Your task to perform on an android device: Go to CNN.com Image 0: 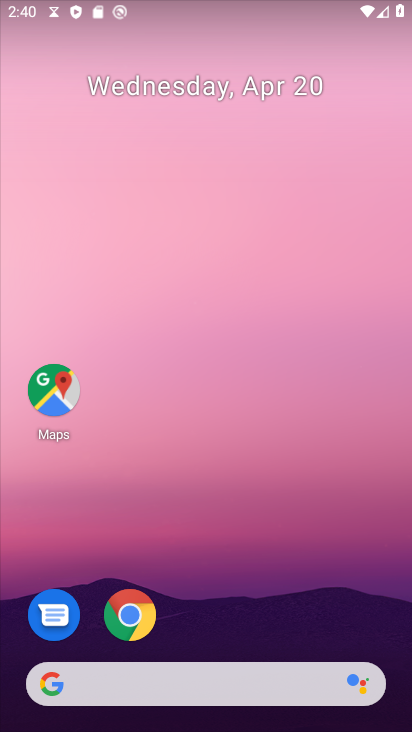
Step 0: drag from (213, 599) to (348, 156)
Your task to perform on an android device: Go to CNN.com Image 1: 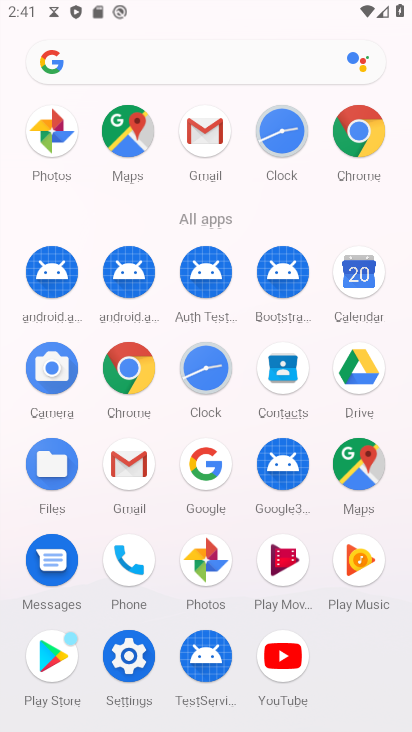
Step 1: click (123, 364)
Your task to perform on an android device: Go to CNN.com Image 2: 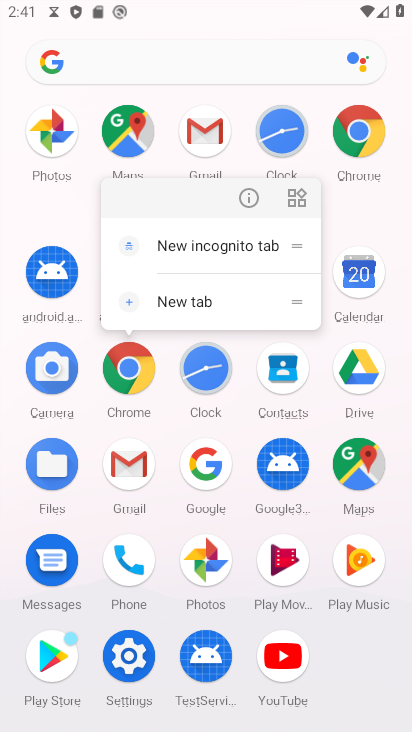
Step 2: click (253, 196)
Your task to perform on an android device: Go to CNN.com Image 3: 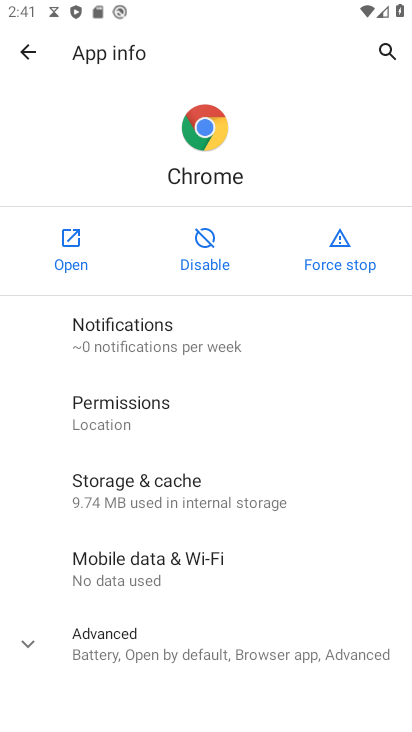
Step 3: click (80, 232)
Your task to perform on an android device: Go to CNN.com Image 4: 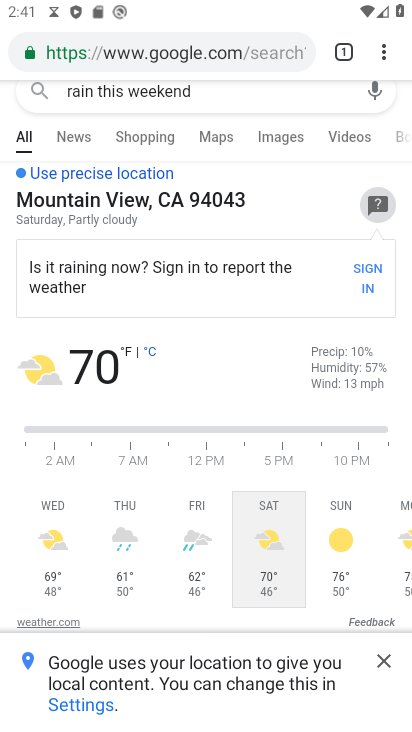
Step 4: click (175, 54)
Your task to perform on an android device: Go to CNN.com Image 5: 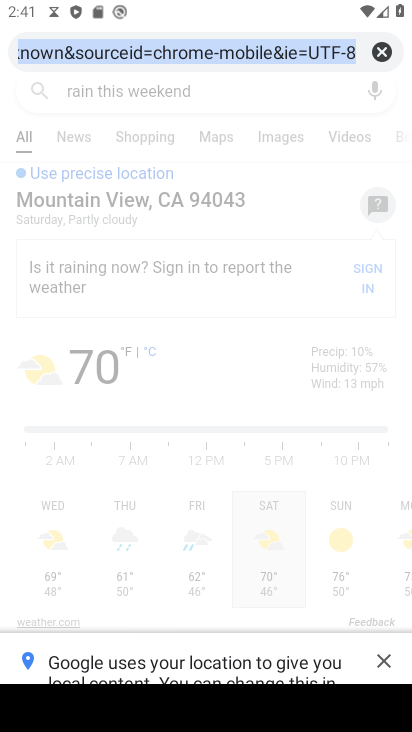
Step 5: click (384, 45)
Your task to perform on an android device: Go to CNN.com Image 6: 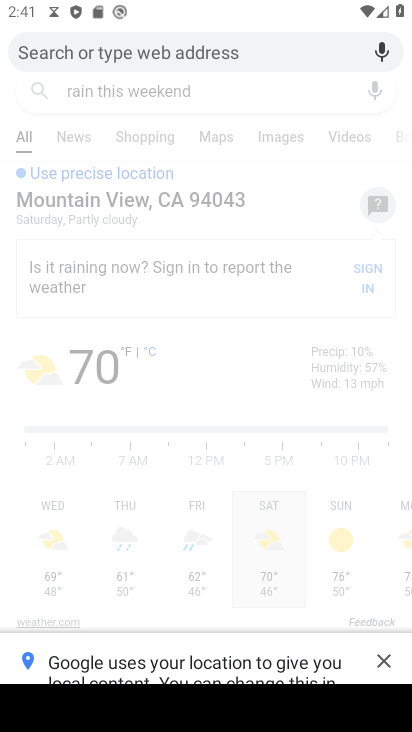
Step 6: click (126, 49)
Your task to perform on an android device: Go to CNN.com Image 7: 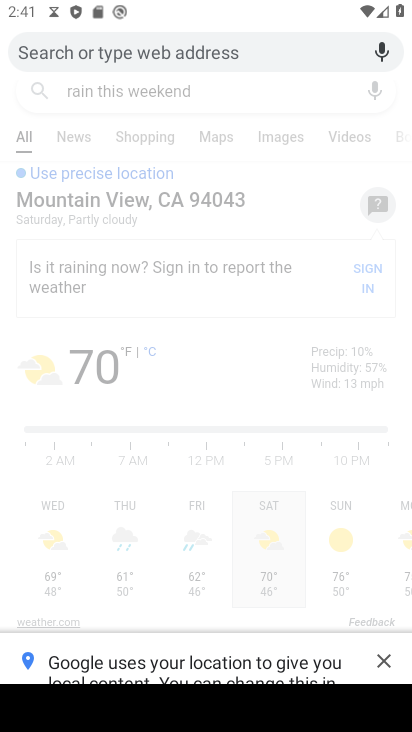
Step 7: type "cnn"
Your task to perform on an android device: Go to CNN.com Image 8: 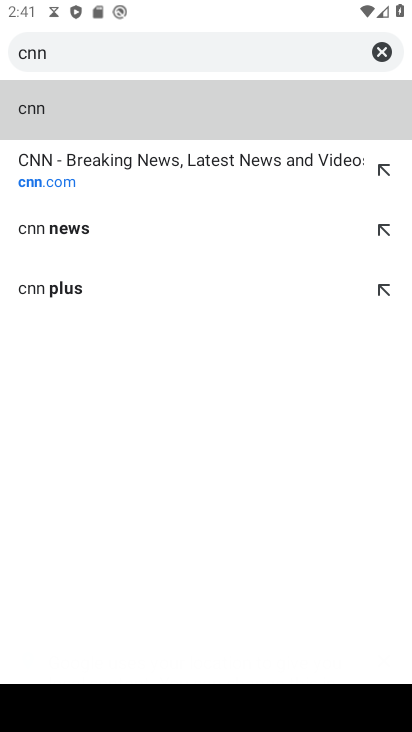
Step 8: click (49, 110)
Your task to perform on an android device: Go to CNN.com Image 9: 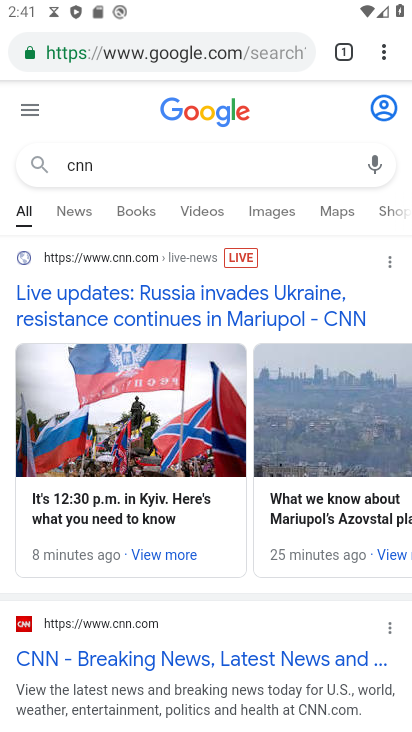
Step 9: click (158, 651)
Your task to perform on an android device: Go to CNN.com Image 10: 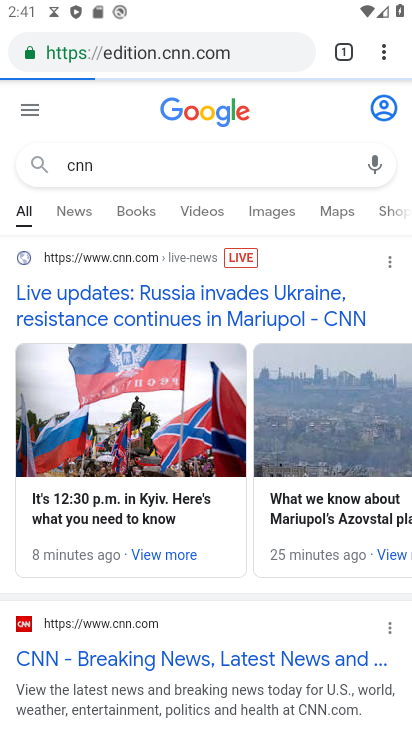
Step 10: task complete